Your task to perform on an android device: Show me the alarms in the clock app Image 0: 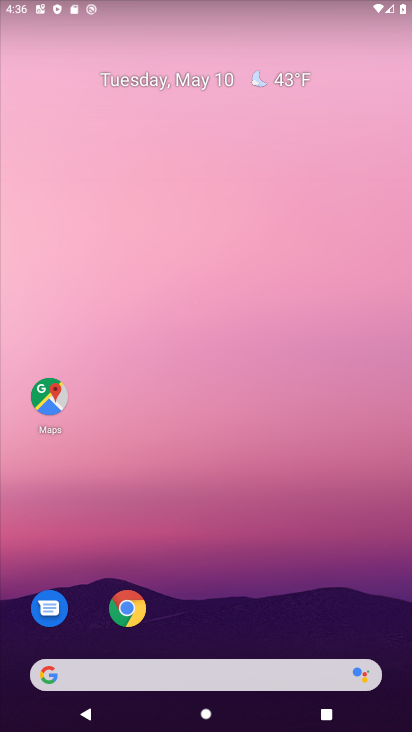
Step 0: drag from (285, 531) to (340, 160)
Your task to perform on an android device: Show me the alarms in the clock app Image 1: 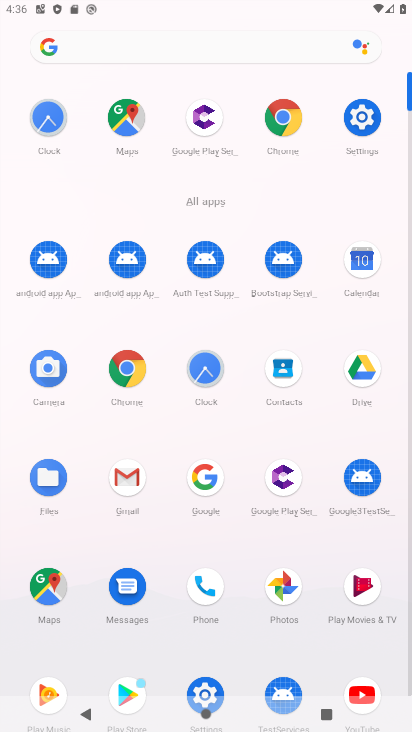
Step 1: click (204, 368)
Your task to perform on an android device: Show me the alarms in the clock app Image 2: 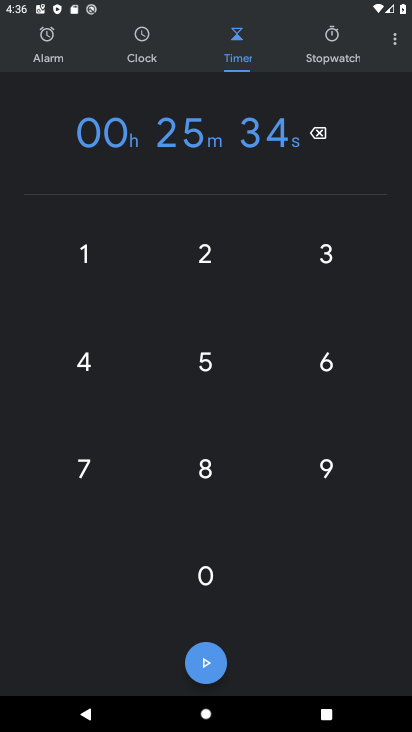
Step 2: click (53, 45)
Your task to perform on an android device: Show me the alarms in the clock app Image 3: 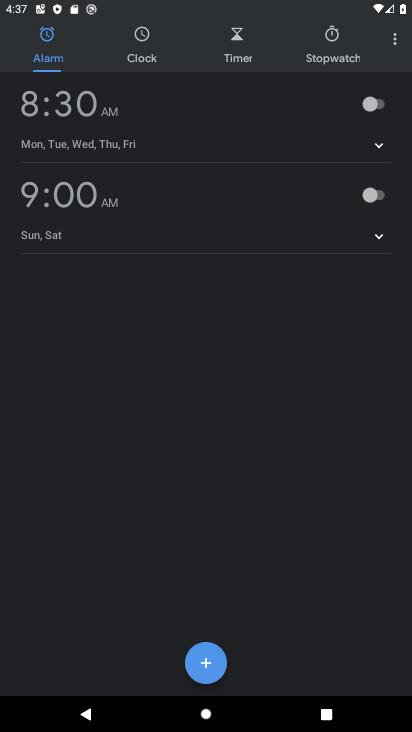
Step 3: task complete